Your task to perform on an android device: turn on bluetooth scan Image 0: 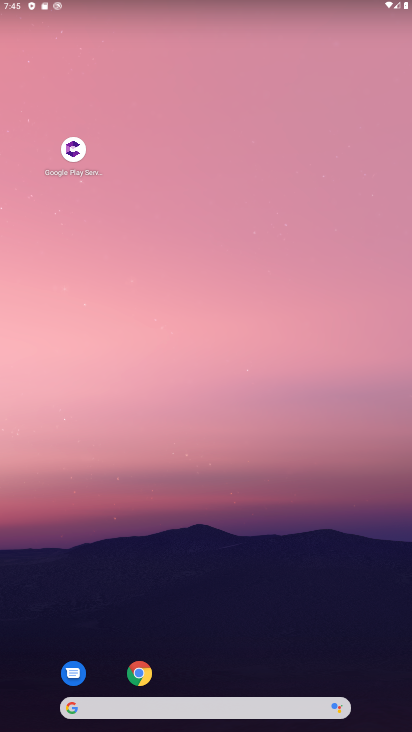
Step 0: drag from (326, 626) to (268, 117)
Your task to perform on an android device: turn on bluetooth scan Image 1: 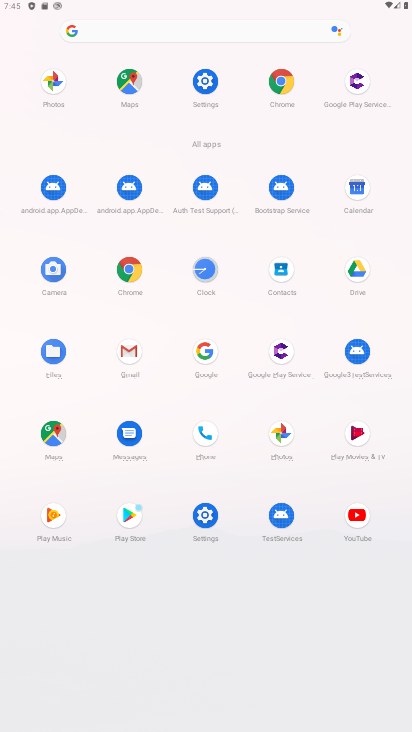
Step 1: click (211, 81)
Your task to perform on an android device: turn on bluetooth scan Image 2: 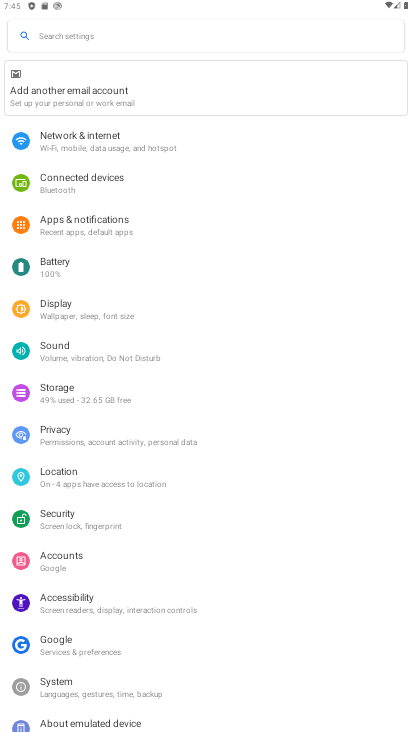
Step 2: click (68, 475)
Your task to perform on an android device: turn on bluetooth scan Image 3: 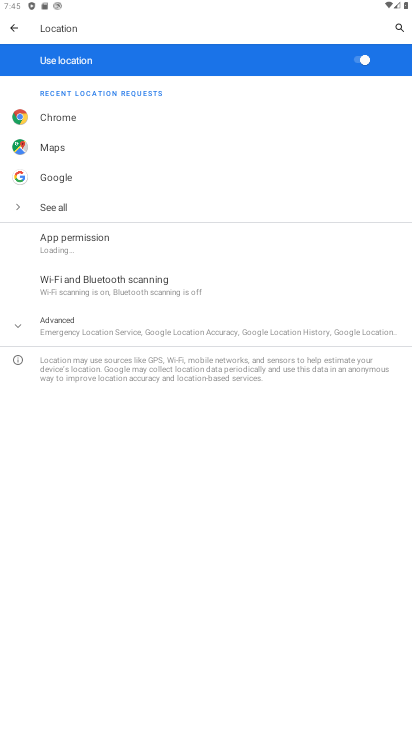
Step 3: click (106, 280)
Your task to perform on an android device: turn on bluetooth scan Image 4: 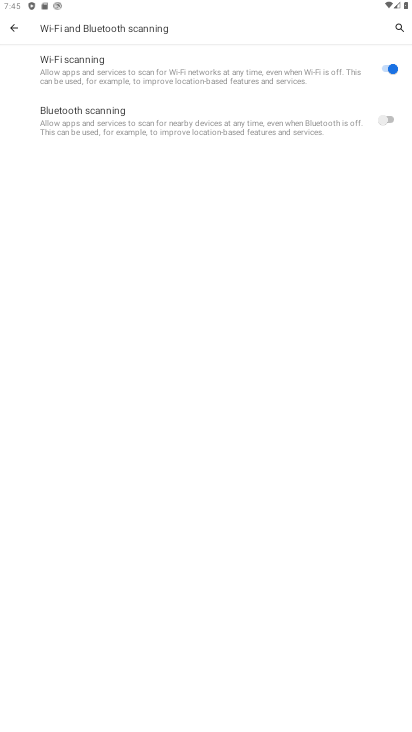
Step 4: click (390, 122)
Your task to perform on an android device: turn on bluetooth scan Image 5: 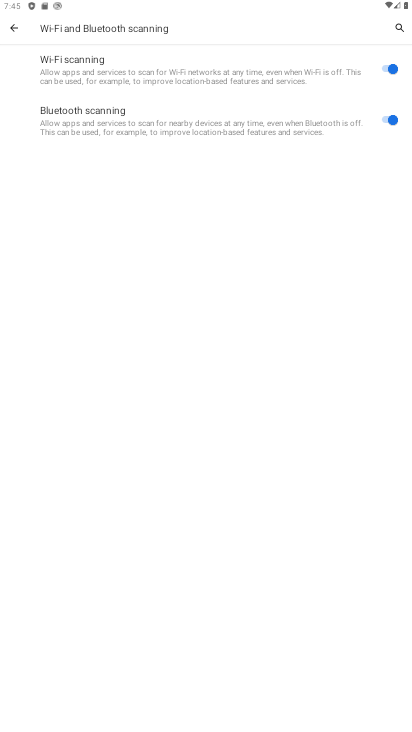
Step 5: task complete